Your task to perform on an android device: Open Maps and search for coffee Image 0: 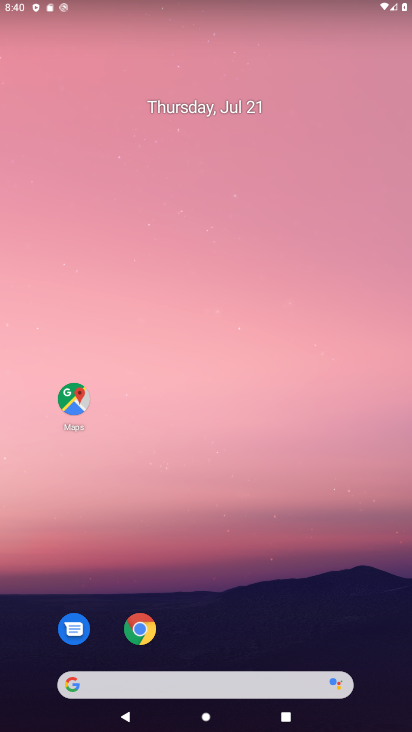
Step 0: click (79, 409)
Your task to perform on an android device: Open Maps and search for coffee Image 1: 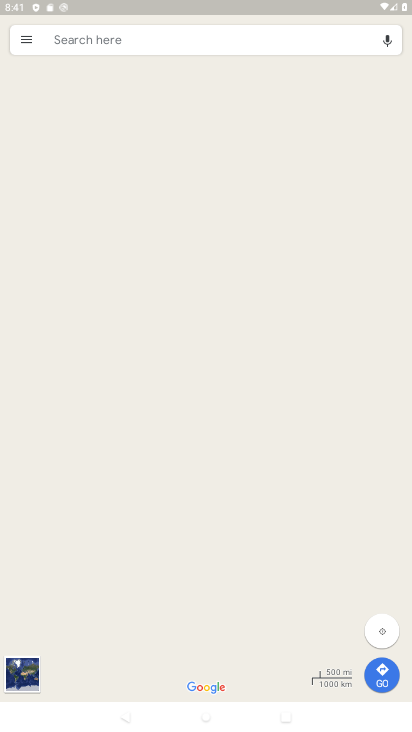
Step 1: click (181, 28)
Your task to perform on an android device: Open Maps and search for coffee Image 2: 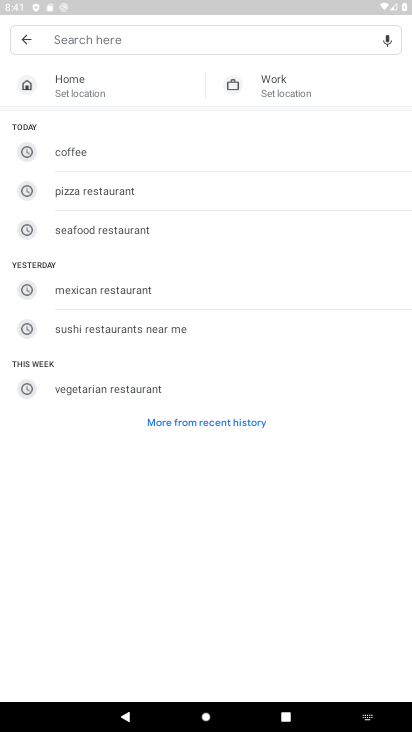
Step 2: type "coffee"
Your task to perform on an android device: Open Maps and search for coffee Image 3: 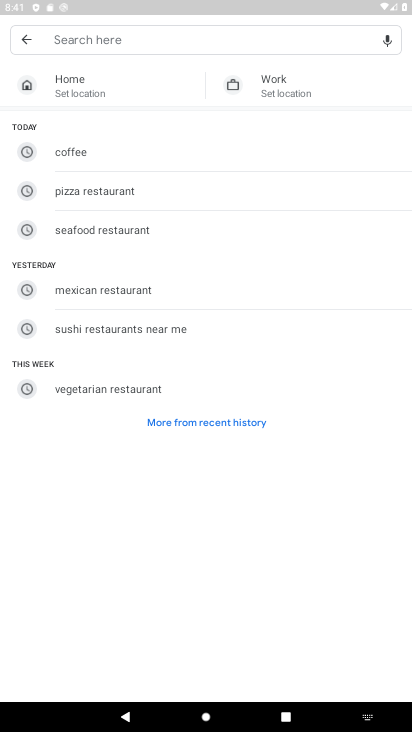
Step 3: click (71, 144)
Your task to perform on an android device: Open Maps and search for coffee Image 4: 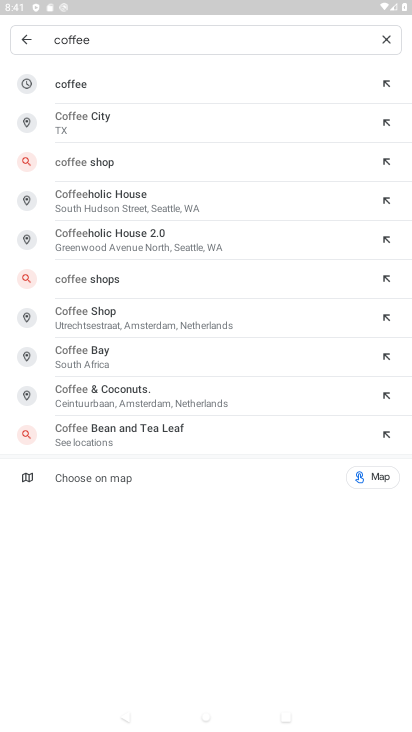
Step 4: click (90, 168)
Your task to perform on an android device: Open Maps and search for coffee Image 5: 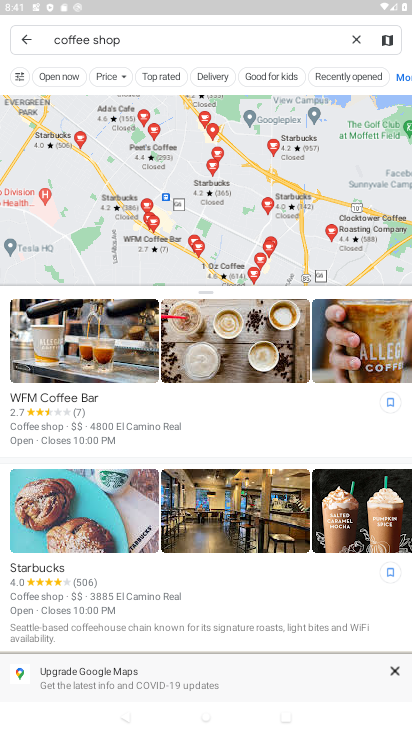
Step 5: task complete